Your task to perform on an android device: see creations saved in the google photos Image 0: 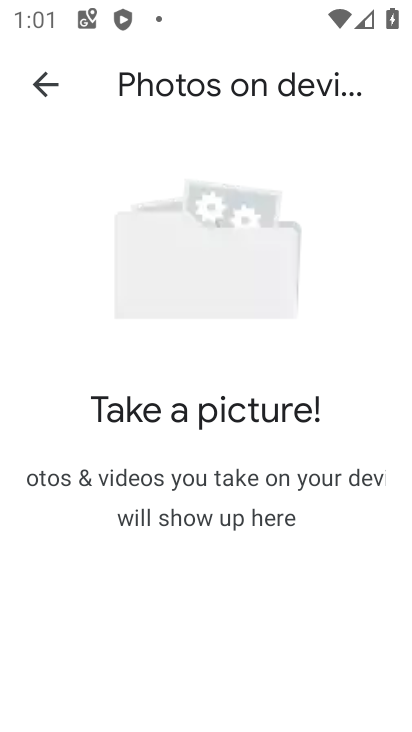
Step 0: click (49, 96)
Your task to perform on an android device: see creations saved in the google photos Image 1: 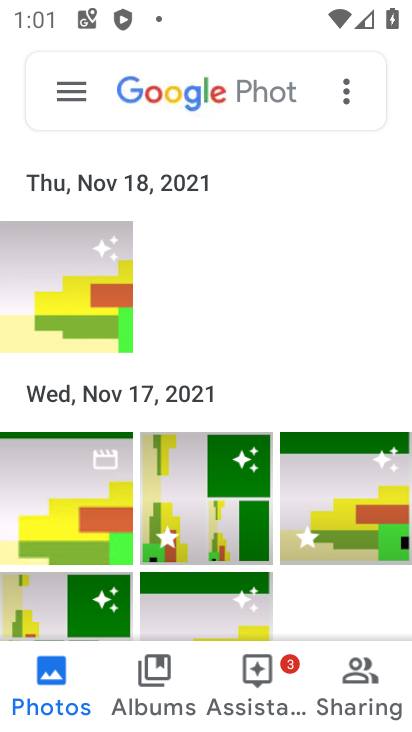
Step 1: click (224, 93)
Your task to perform on an android device: see creations saved in the google photos Image 2: 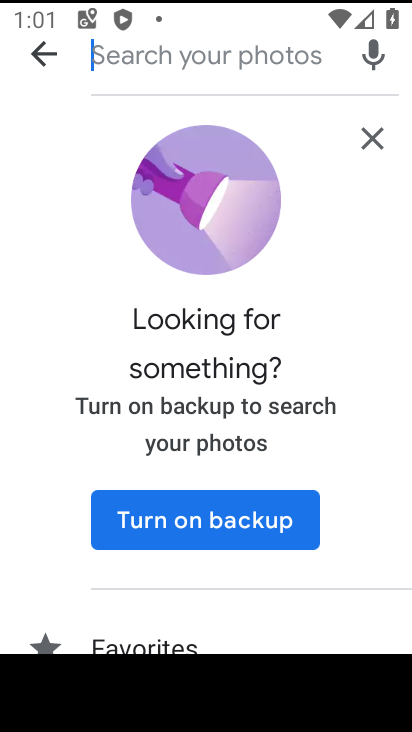
Step 2: drag from (273, 576) to (252, 157)
Your task to perform on an android device: see creations saved in the google photos Image 3: 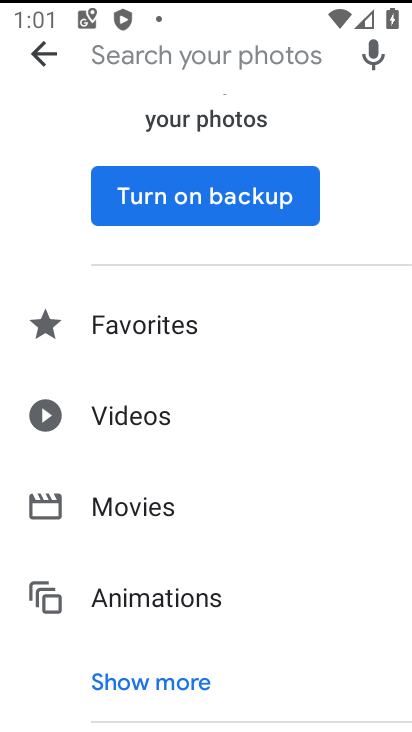
Step 3: click (123, 683)
Your task to perform on an android device: see creations saved in the google photos Image 4: 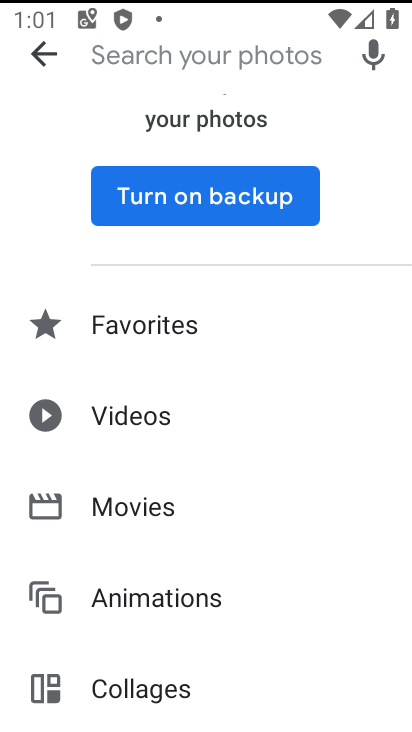
Step 4: drag from (146, 655) to (176, 400)
Your task to perform on an android device: see creations saved in the google photos Image 5: 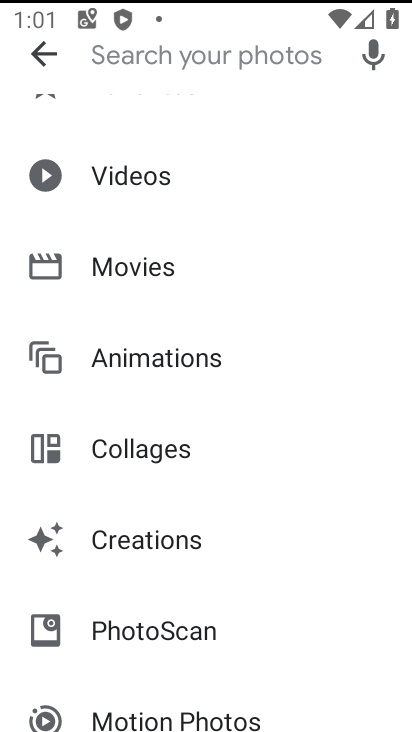
Step 5: click (169, 534)
Your task to perform on an android device: see creations saved in the google photos Image 6: 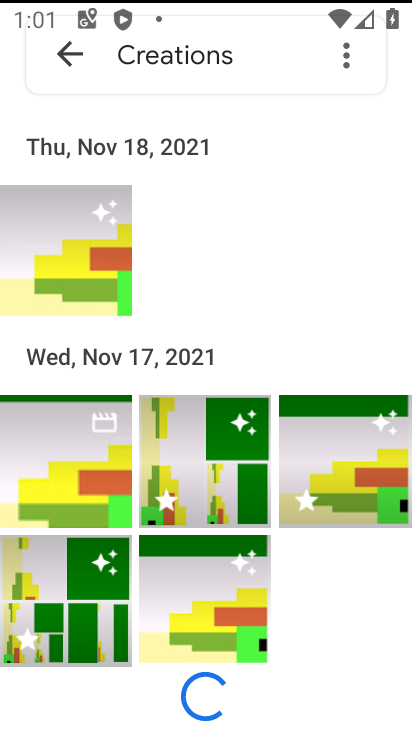
Step 6: task complete